Your task to perform on an android device: Do I have any events this weekend? Image 0: 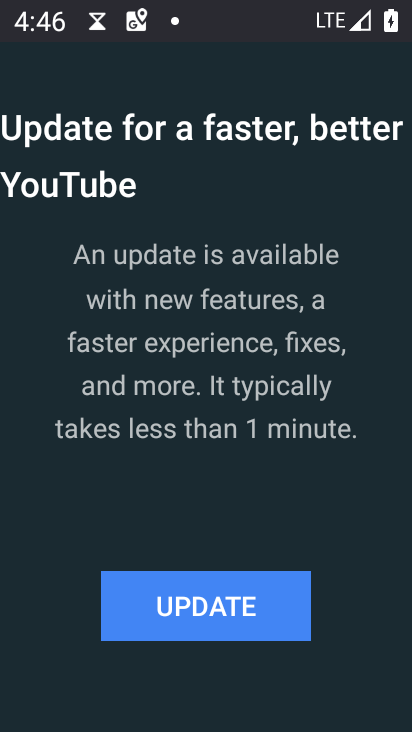
Step 0: press home button
Your task to perform on an android device: Do I have any events this weekend? Image 1: 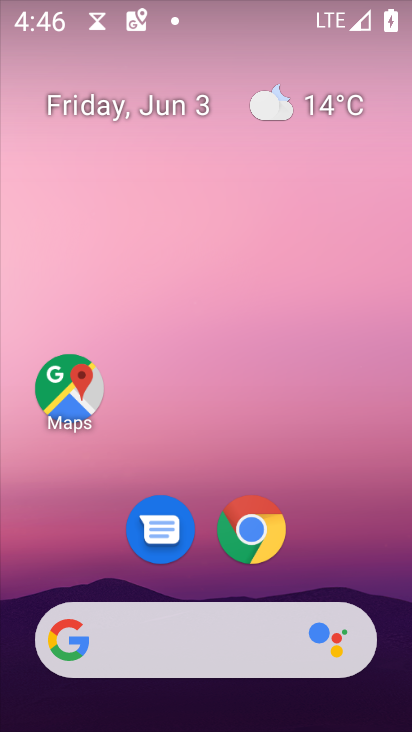
Step 1: click (119, 87)
Your task to perform on an android device: Do I have any events this weekend? Image 2: 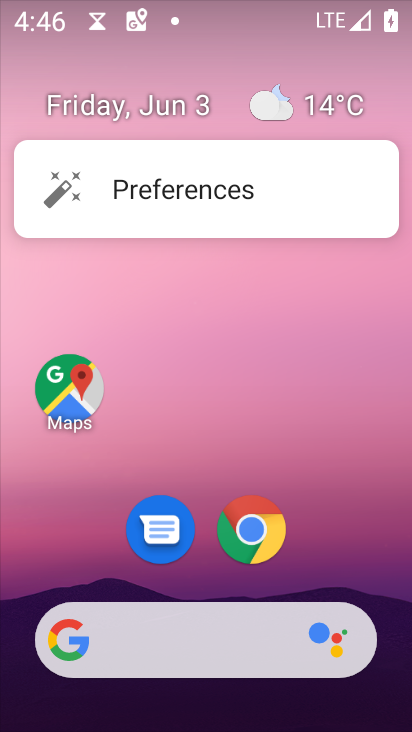
Step 2: click (122, 94)
Your task to perform on an android device: Do I have any events this weekend? Image 3: 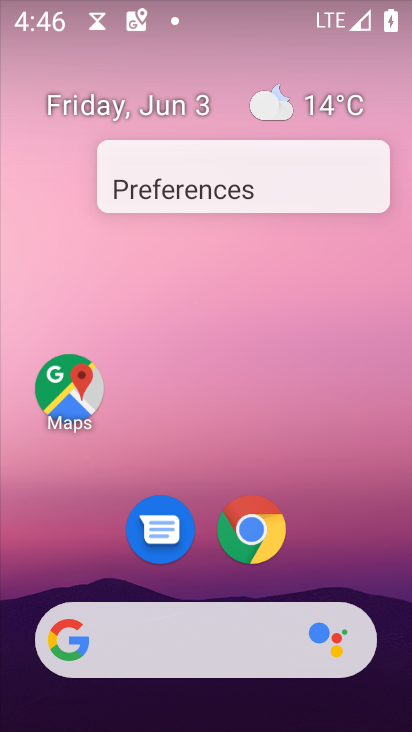
Step 3: click (118, 101)
Your task to perform on an android device: Do I have any events this weekend? Image 4: 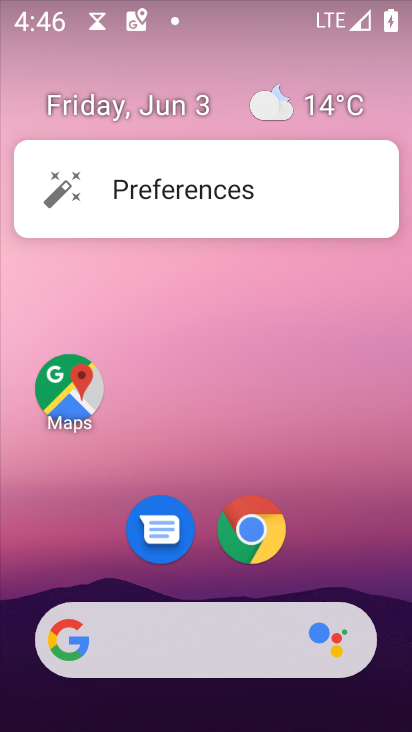
Step 4: click (124, 111)
Your task to perform on an android device: Do I have any events this weekend? Image 5: 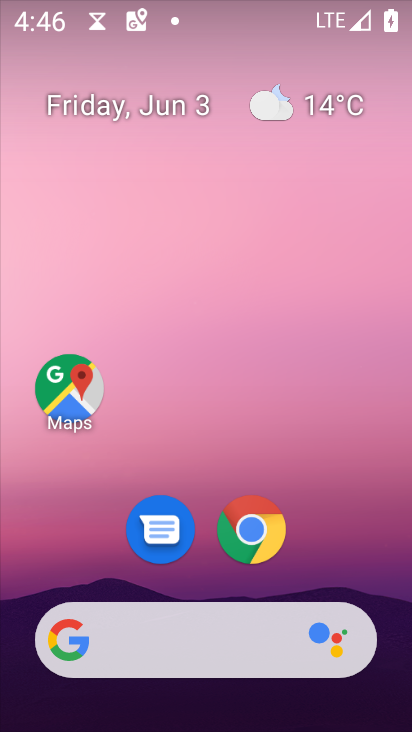
Step 5: click (89, 112)
Your task to perform on an android device: Do I have any events this weekend? Image 6: 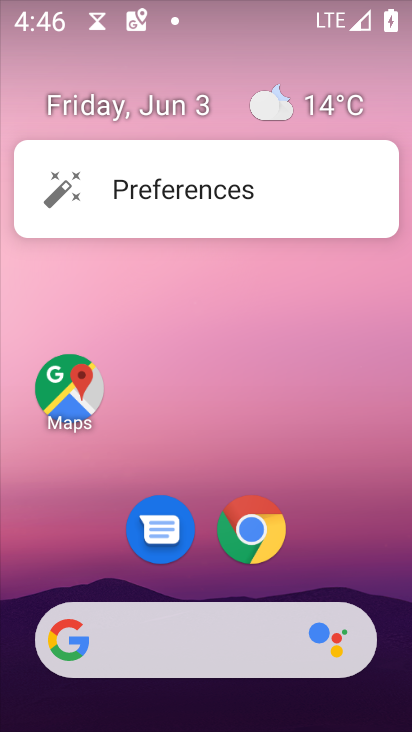
Step 6: click (194, 102)
Your task to perform on an android device: Do I have any events this weekend? Image 7: 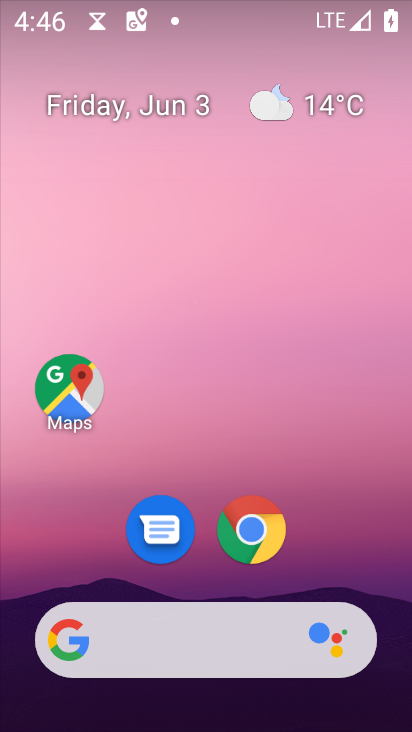
Step 7: drag from (294, 117) to (305, 17)
Your task to perform on an android device: Do I have any events this weekend? Image 8: 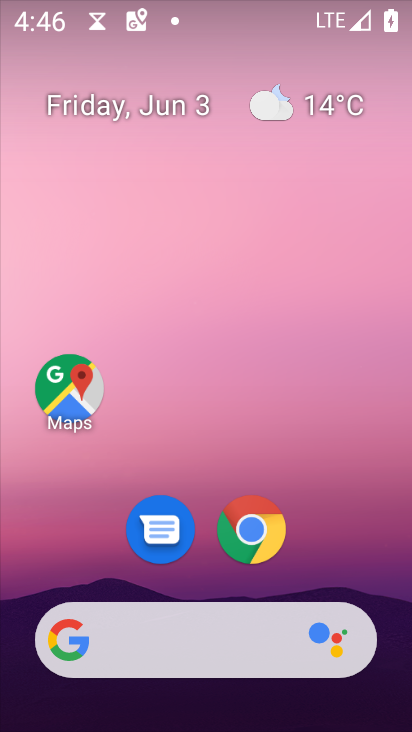
Step 8: drag from (340, 497) to (276, 16)
Your task to perform on an android device: Do I have any events this weekend? Image 9: 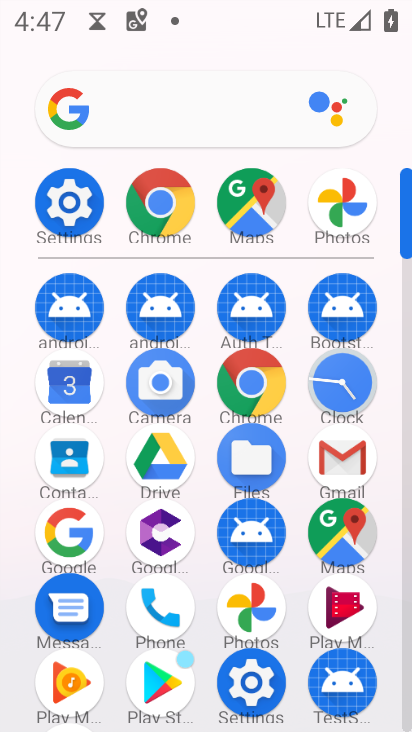
Step 9: click (43, 391)
Your task to perform on an android device: Do I have any events this weekend? Image 10: 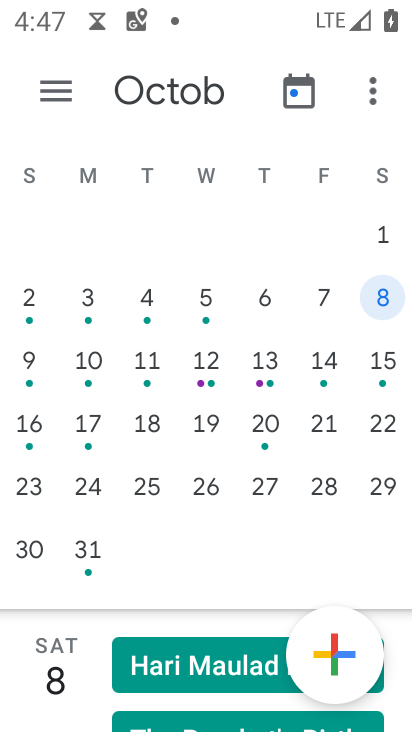
Step 10: click (28, 391)
Your task to perform on an android device: Do I have any events this weekend? Image 11: 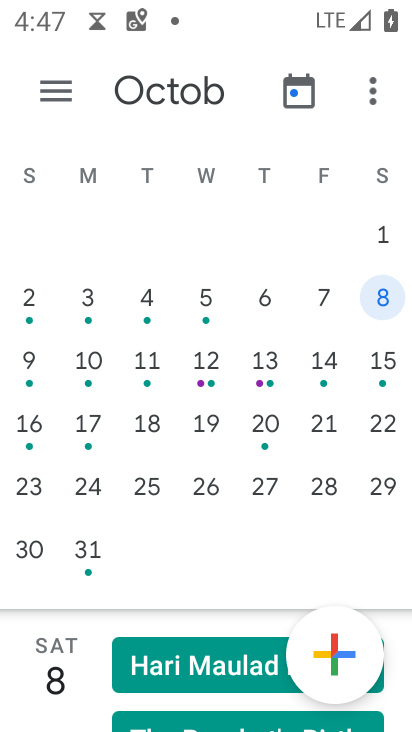
Step 11: task complete